Your task to perform on an android device: toggle notification dots Image 0: 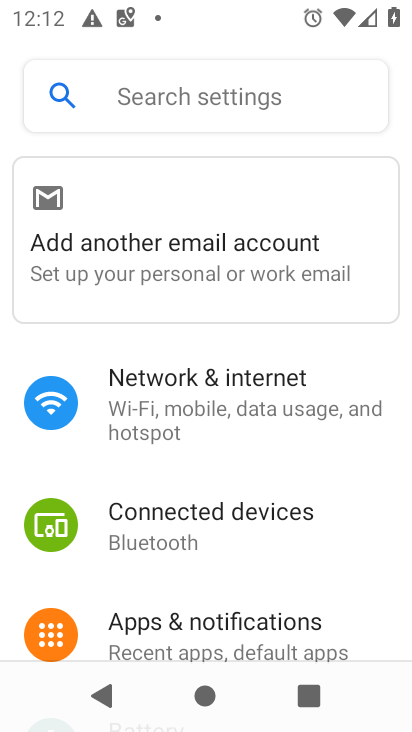
Step 0: click (175, 624)
Your task to perform on an android device: toggle notification dots Image 1: 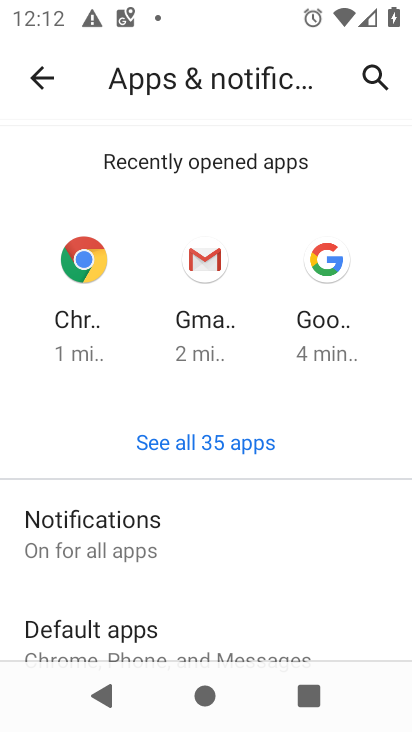
Step 1: click (143, 530)
Your task to perform on an android device: toggle notification dots Image 2: 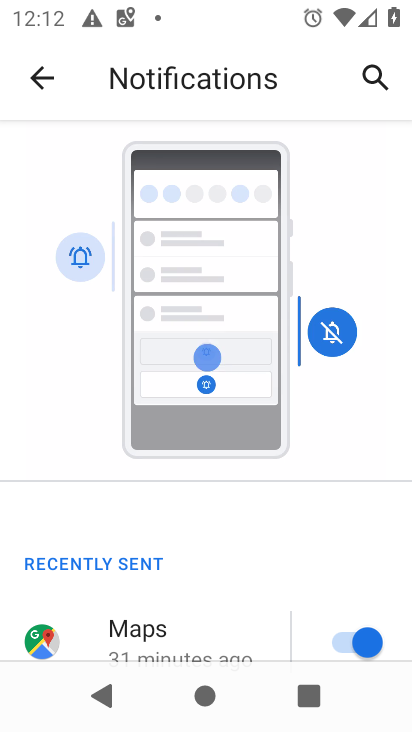
Step 2: drag from (142, 636) to (287, 6)
Your task to perform on an android device: toggle notification dots Image 3: 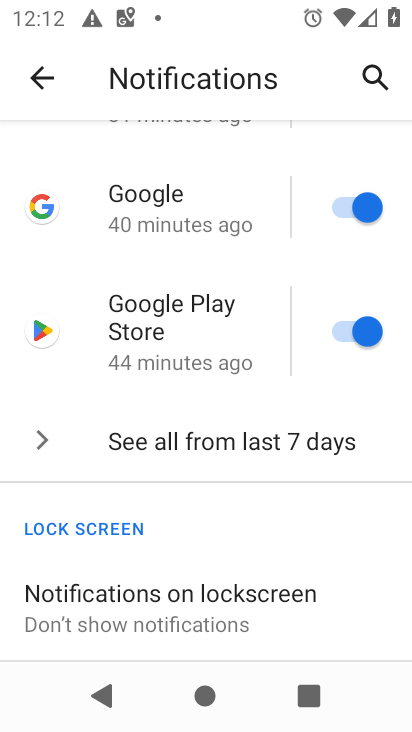
Step 3: drag from (151, 659) to (221, 303)
Your task to perform on an android device: toggle notification dots Image 4: 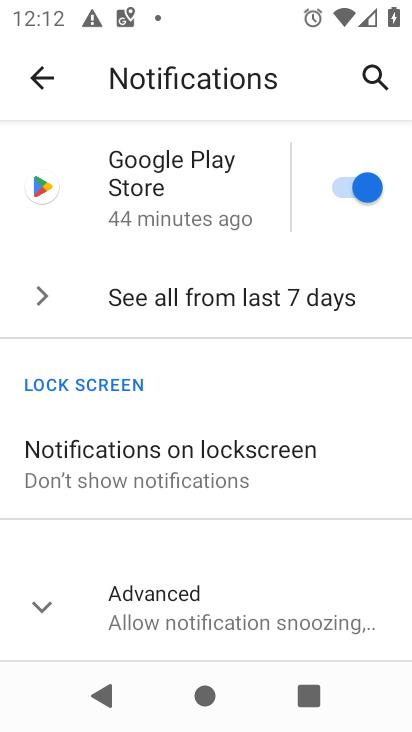
Step 4: click (165, 604)
Your task to perform on an android device: toggle notification dots Image 5: 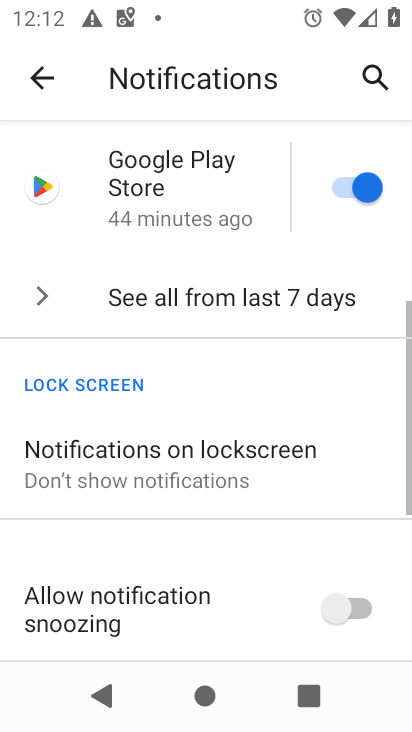
Step 5: drag from (192, 612) to (285, 135)
Your task to perform on an android device: toggle notification dots Image 6: 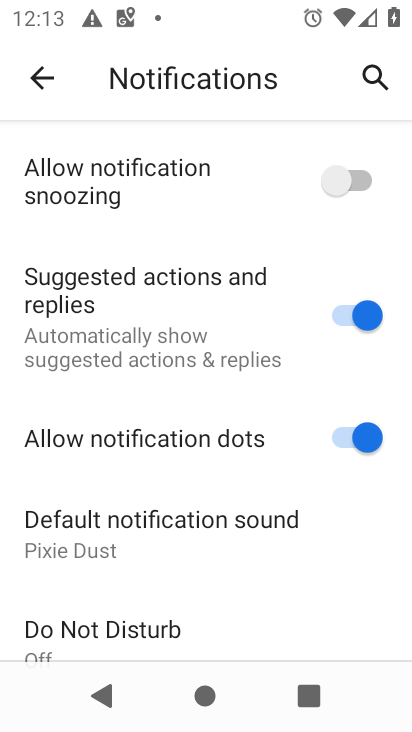
Step 6: click (361, 443)
Your task to perform on an android device: toggle notification dots Image 7: 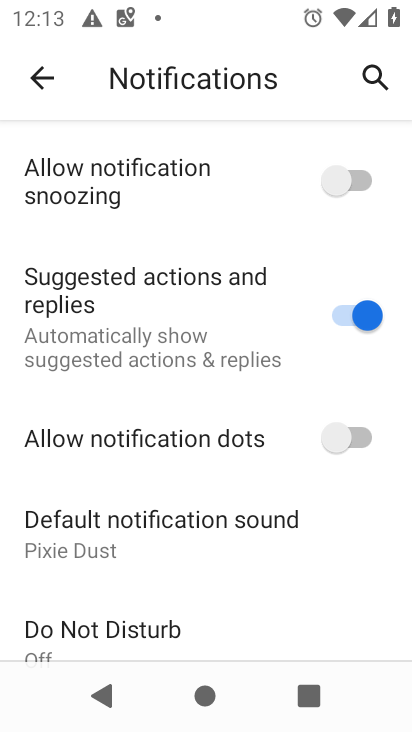
Step 7: task complete